Your task to perform on an android device: Is it going to rain this weekend? Image 0: 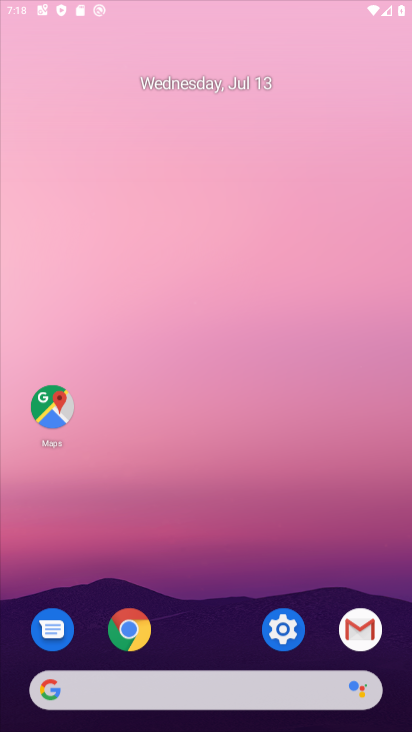
Step 0: press home button
Your task to perform on an android device: Is it going to rain this weekend? Image 1: 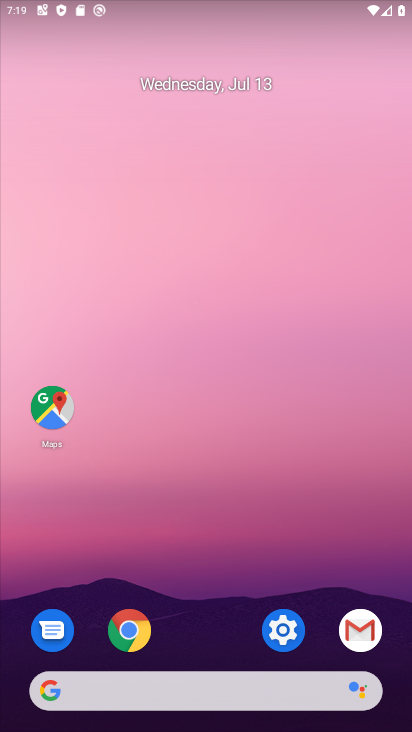
Step 1: press home button
Your task to perform on an android device: Is it going to rain this weekend? Image 2: 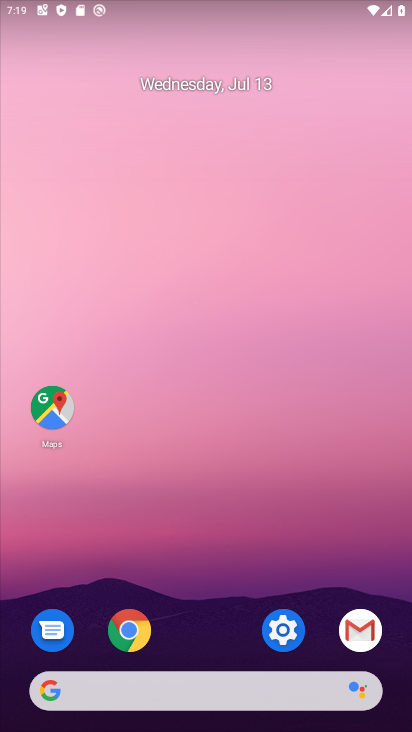
Step 2: click (206, 680)
Your task to perform on an android device: Is it going to rain this weekend? Image 3: 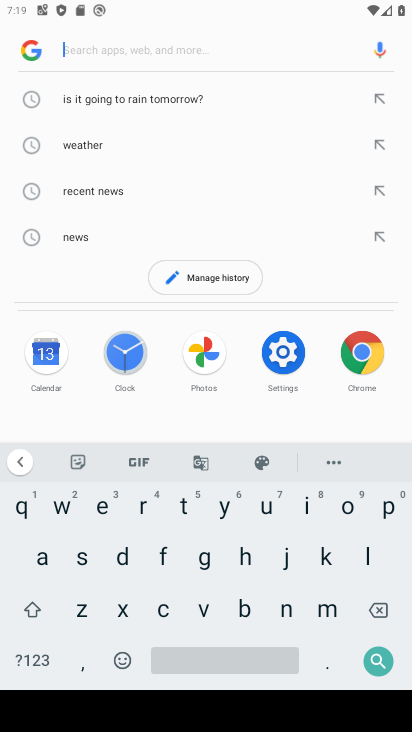
Step 3: click (142, 503)
Your task to perform on an android device: Is it going to rain this weekend? Image 4: 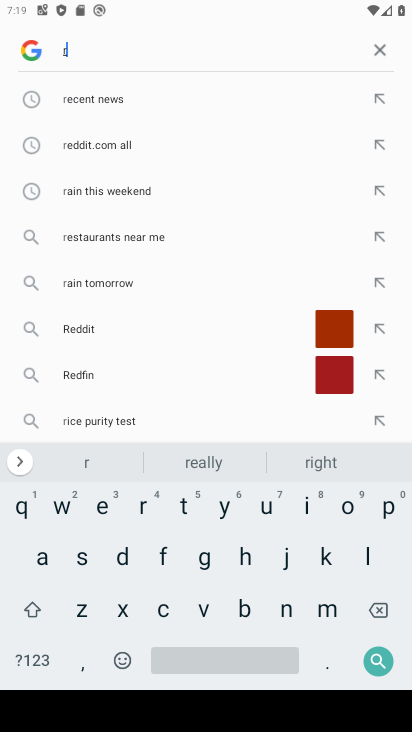
Step 4: click (35, 560)
Your task to perform on an android device: Is it going to rain this weekend? Image 5: 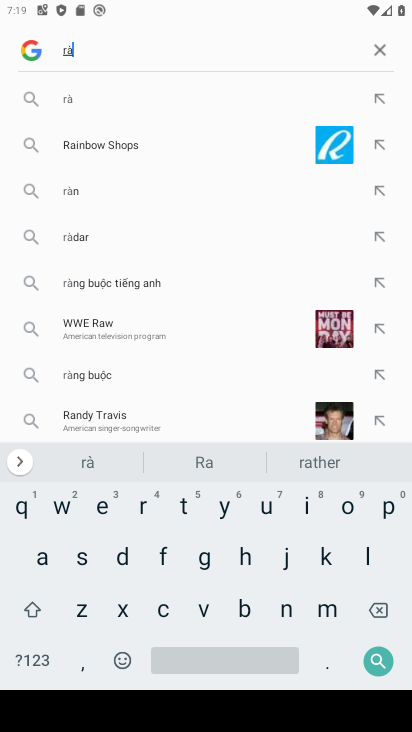
Step 5: click (306, 507)
Your task to perform on an android device: Is it going to rain this weekend? Image 6: 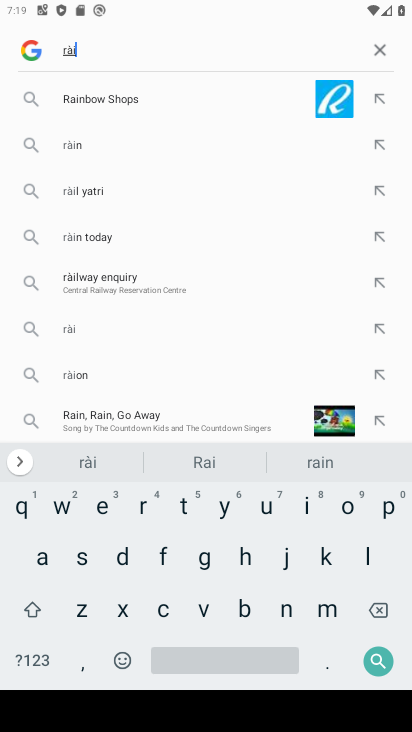
Step 6: click (280, 616)
Your task to perform on an android device: Is it going to rain this weekend? Image 7: 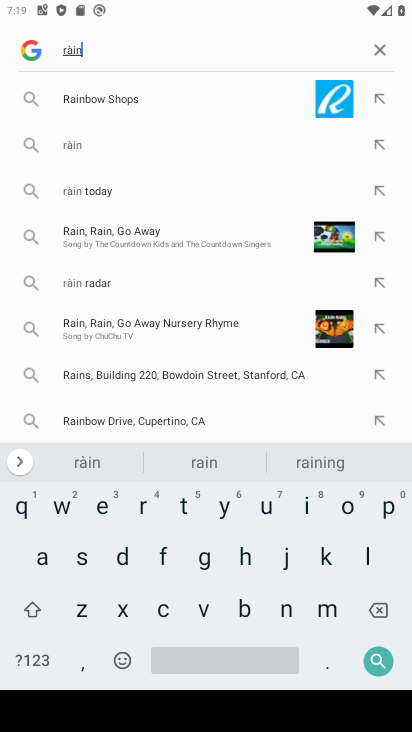
Step 7: click (104, 147)
Your task to perform on an android device: Is it going to rain this weekend? Image 8: 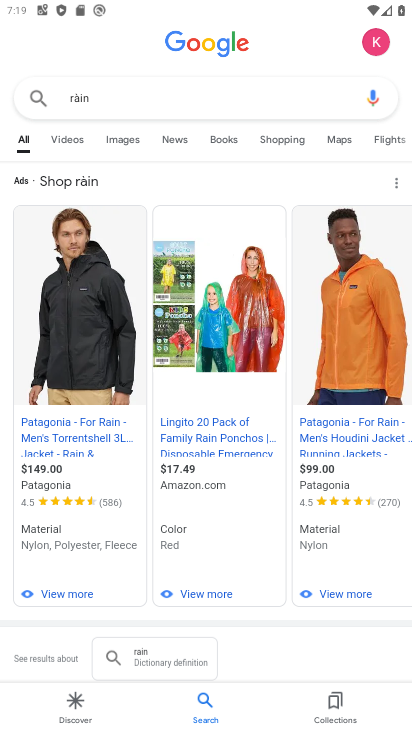
Step 8: drag from (255, 500) to (283, 258)
Your task to perform on an android device: Is it going to rain this weekend? Image 9: 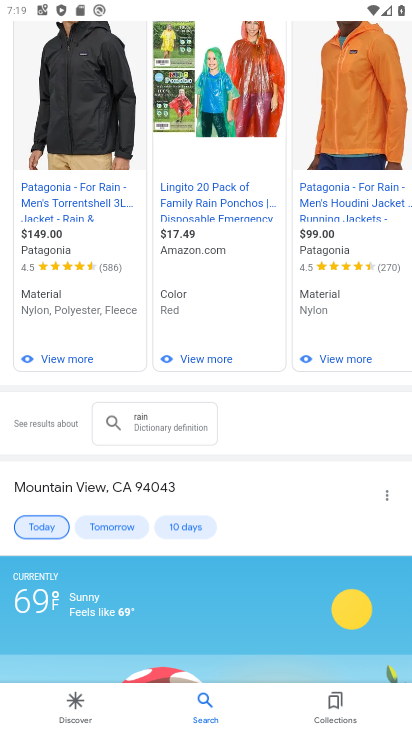
Step 9: drag from (155, 509) to (171, 432)
Your task to perform on an android device: Is it going to rain this weekend? Image 10: 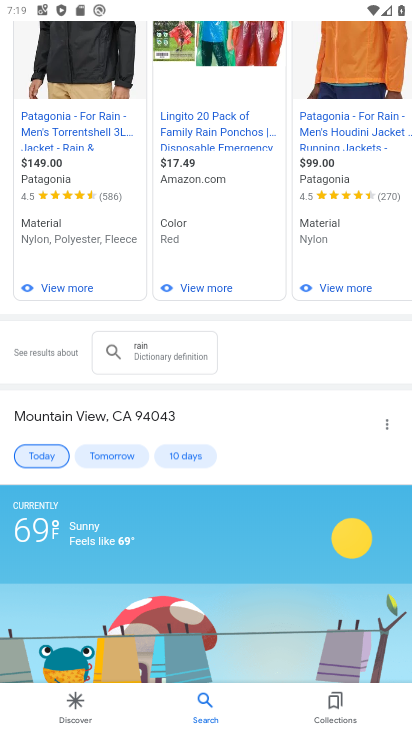
Step 10: click (185, 448)
Your task to perform on an android device: Is it going to rain this weekend? Image 11: 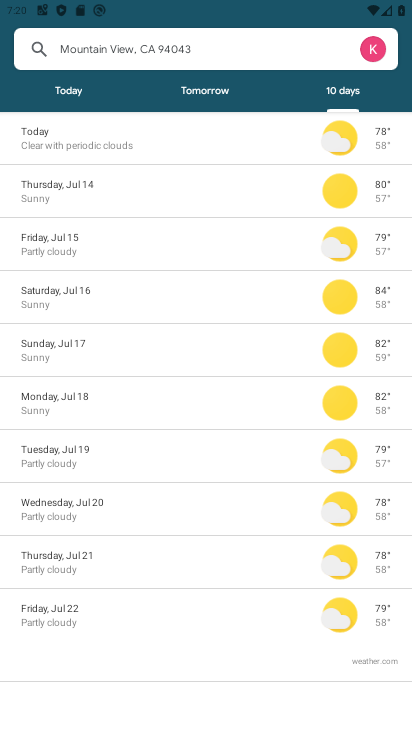
Step 11: task complete